Your task to perform on an android device: Open the calendar and show me this week's events? Image 0: 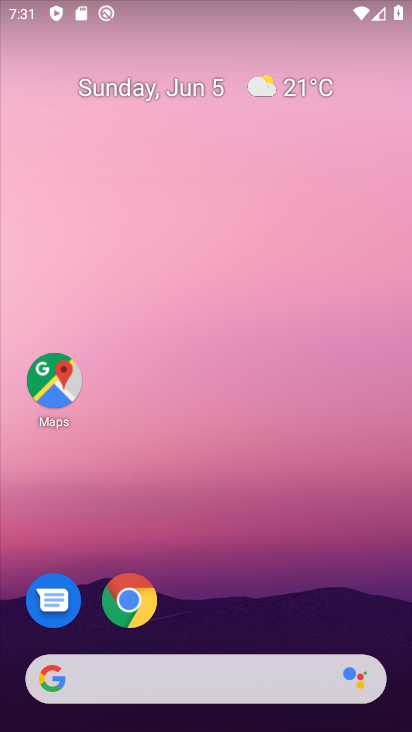
Step 0: drag from (119, 731) to (124, 9)
Your task to perform on an android device: Open the calendar and show me this week's events? Image 1: 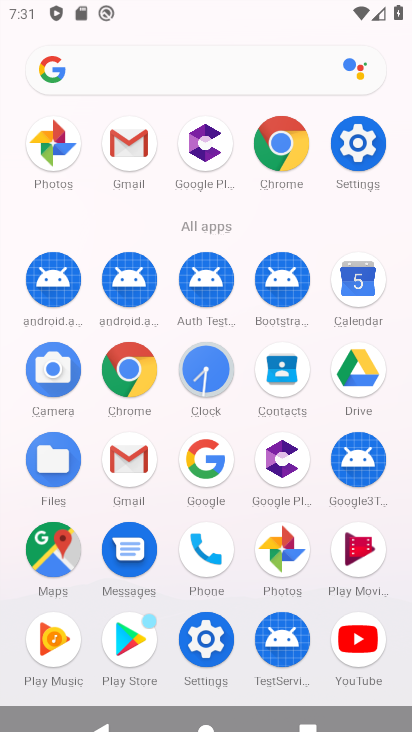
Step 1: click (355, 283)
Your task to perform on an android device: Open the calendar and show me this week's events? Image 2: 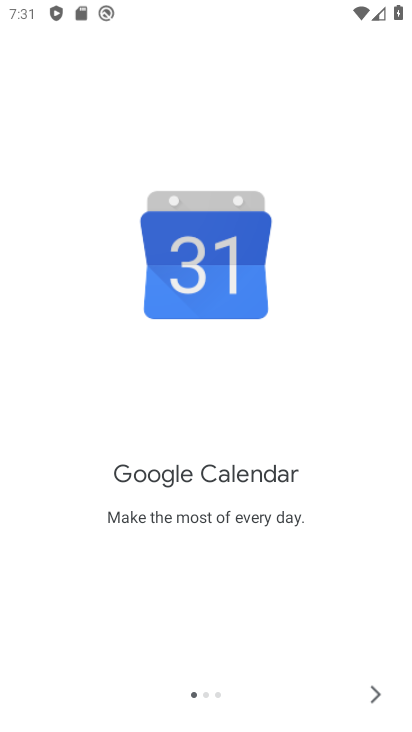
Step 2: click (366, 688)
Your task to perform on an android device: Open the calendar and show me this week's events? Image 3: 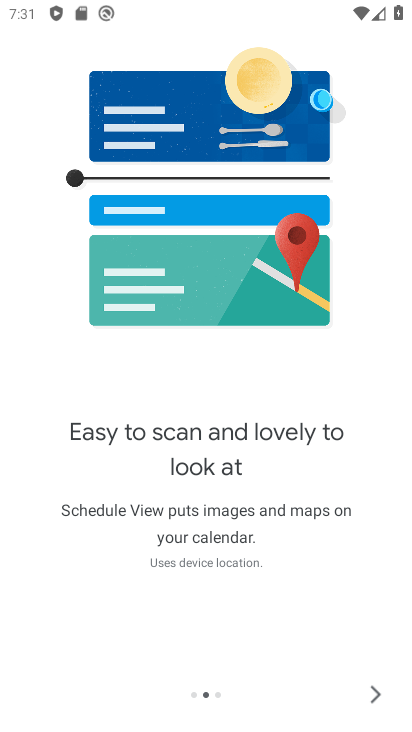
Step 3: click (375, 706)
Your task to perform on an android device: Open the calendar and show me this week's events? Image 4: 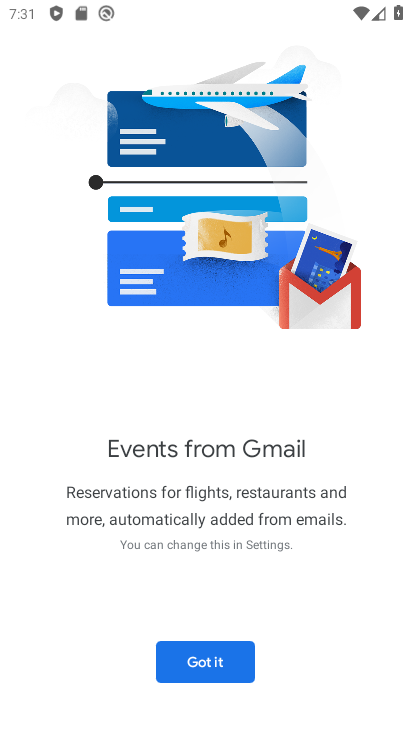
Step 4: click (183, 660)
Your task to perform on an android device: Open the calendar and show me this week's events? Image 5: 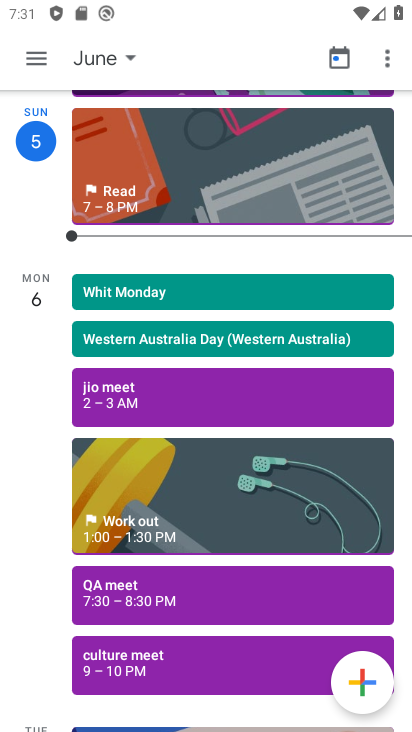
Step 5: click (37, 70)
Your task to perform on an android device: Open the calendar and show me this week's events? Image 6: 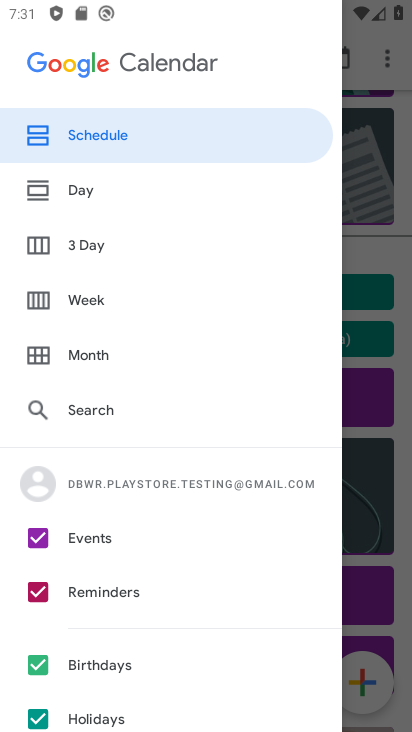
Step 6: click (58, 300)
Your task to perform on an android device: Open the calendar and show me this week's events? Image 7: 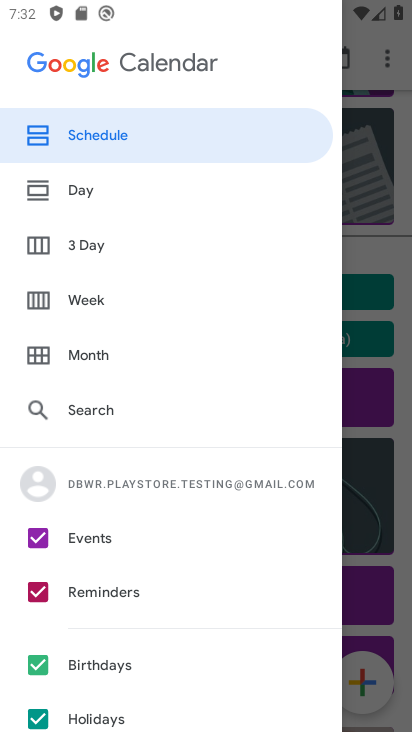
Step 7: click (61, 304)
Your task to perform on an android device: Open the calendar and show me this week's events? Image 8: 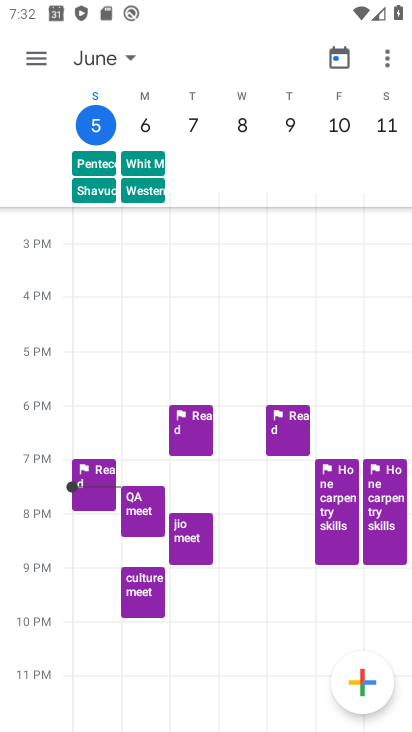
Step 8: click (21, 54)
Your task to perform on an android device: Open the calendar and show me this week's events? Image 9: 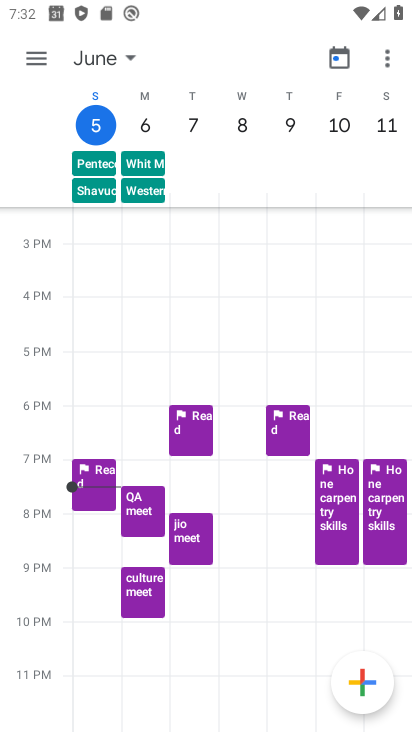
Step 9: click (45, 69)
Your task to perform on an android device: Open the calendar and show me this week's events? Image 10: 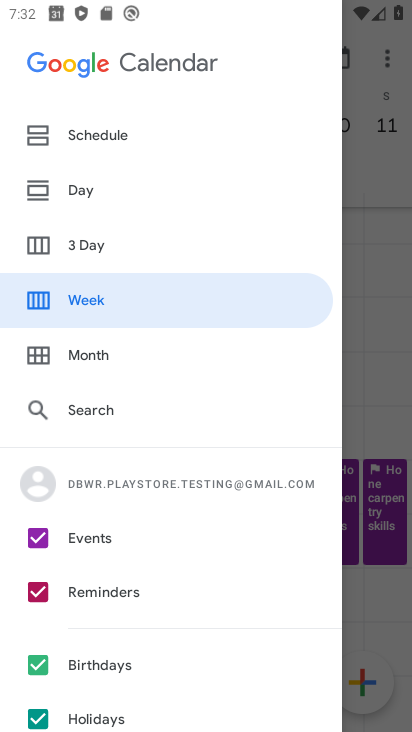
Step 10: click (38, 599)
Your task to perform on an android device: Open the calendar and show me this week's events? Image 11: 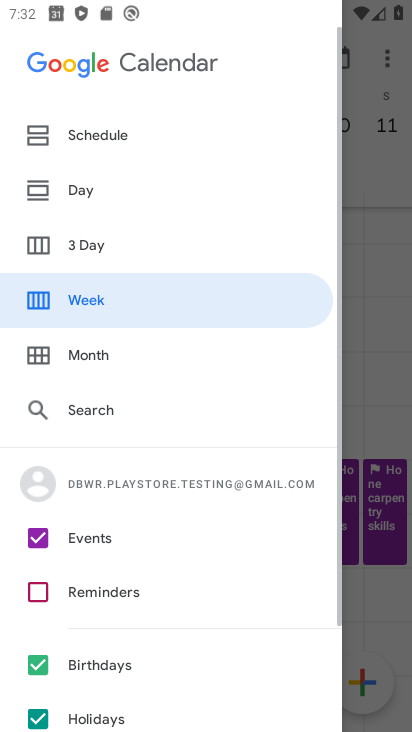
Step 11: click (41, 664)
Your task to perform on an android device: Open the calendar and show me this week's events? Image 12: 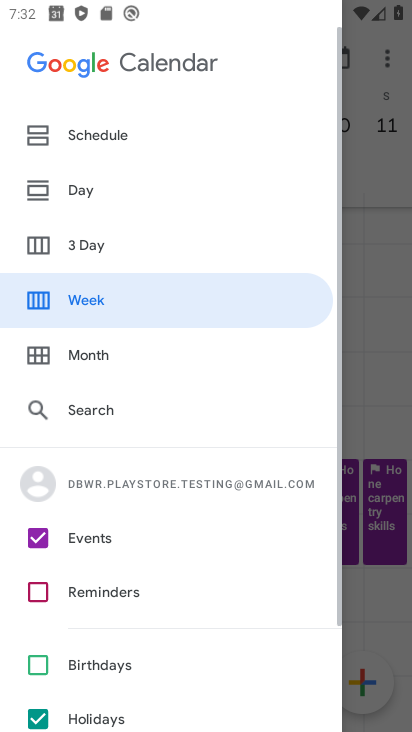
Step 12: click (33, 718)
Your task to perform on an android device: Open the calendar and show me this week's events? Image 13: 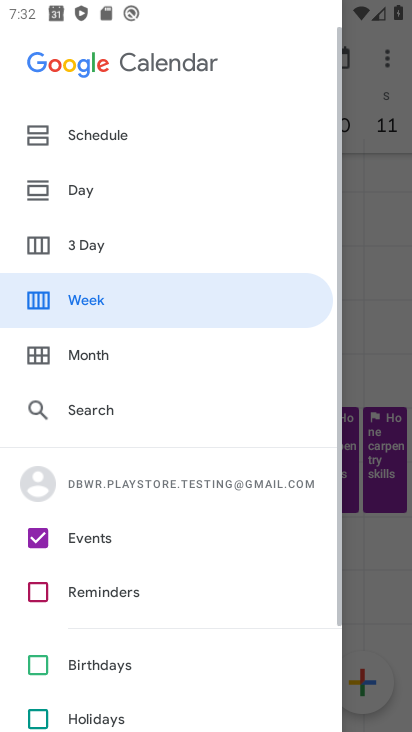
Step 13: click (387, 137)
Your task to perform on an android device: Open the calendar and show me this week's events? Image 14: 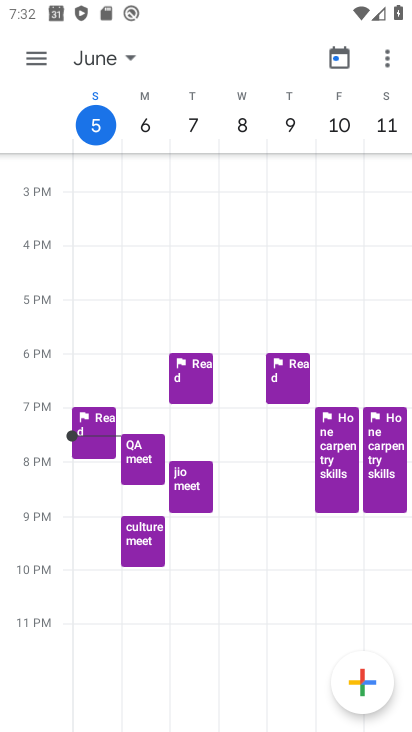
Step 14: task complete